Your task to perform on an android device: empty trash in the gmail app Image 0: 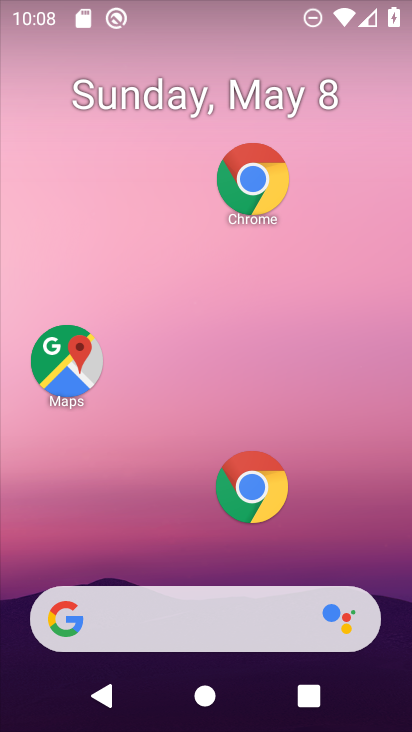
Step 0: drag from (150, 487) to (181, 41)
Your task to perform on an android device: empty trash in the gmail app Image 1: 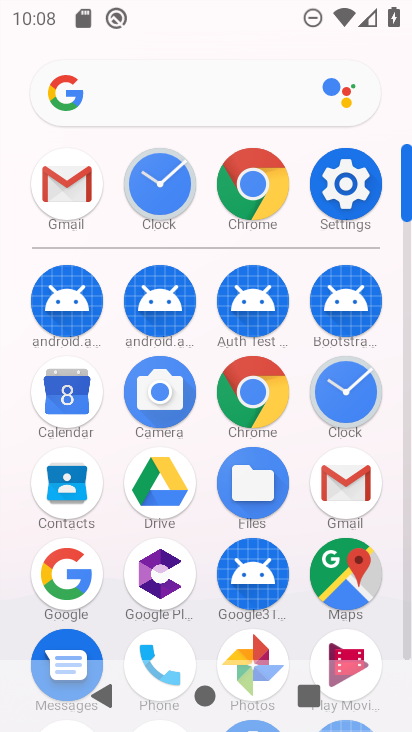
Step 1: click (67, 191)
Your task to perform on an android device: empty trash in the gmail app Image 2: 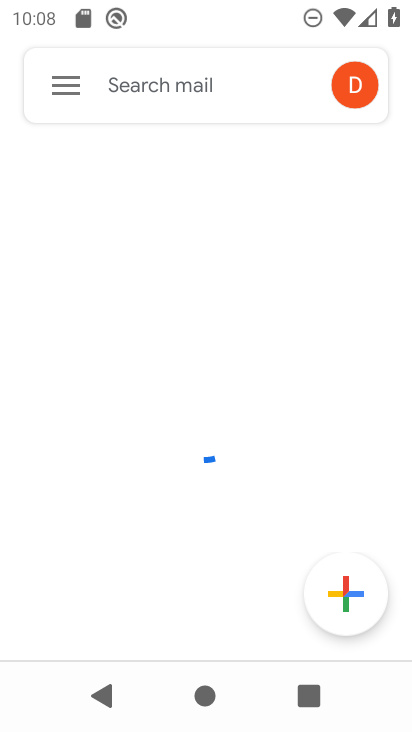
Step 2: click (59, 74)
Your task to perform on an android device: empty trash in the gmail app Image 3: 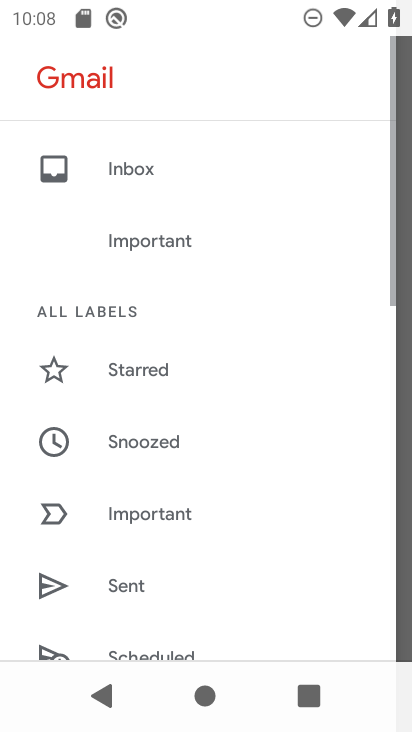
Step 3: drag from (242, 566) to (310, 74)
Your task to perform on an android device: empty trash in the gmail app Image 4: 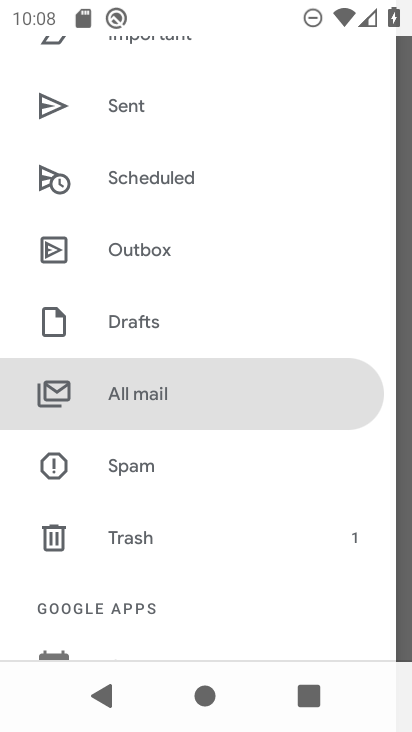
Step 4: drag from (237, 561) to (253, 295)
Your task to perform on an android device: empty trash in the gmail app Image 5: 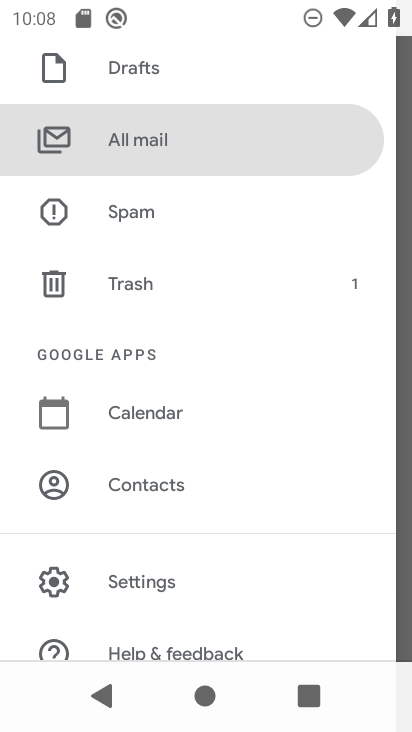
Step 5: click (227, 284)
Your task to perform on an android device: empty trash in the gmail app Image 6: 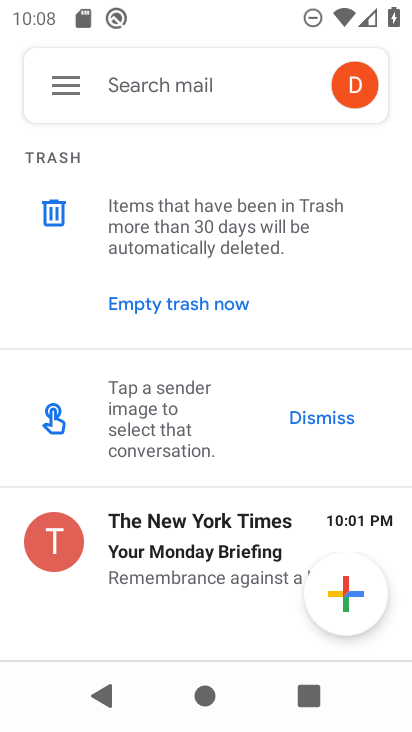
Step 6: click (217, 288)
Your task to perform on an android device: empty trash in the gmail app Image 7: 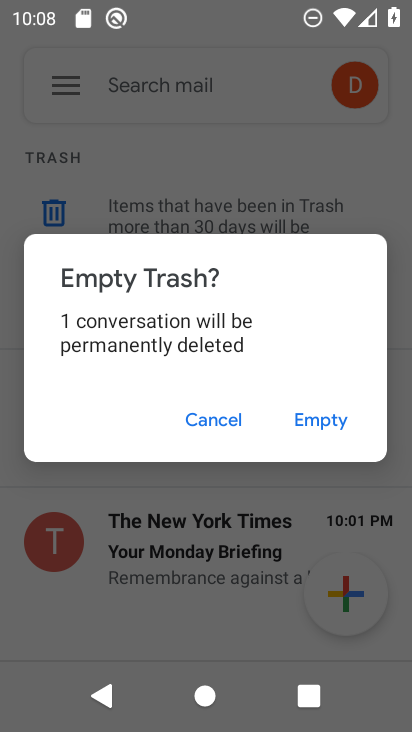
Step 7: click (321, 406)
Your task to perform on an android device: empty trash in the gmail app Image 8: 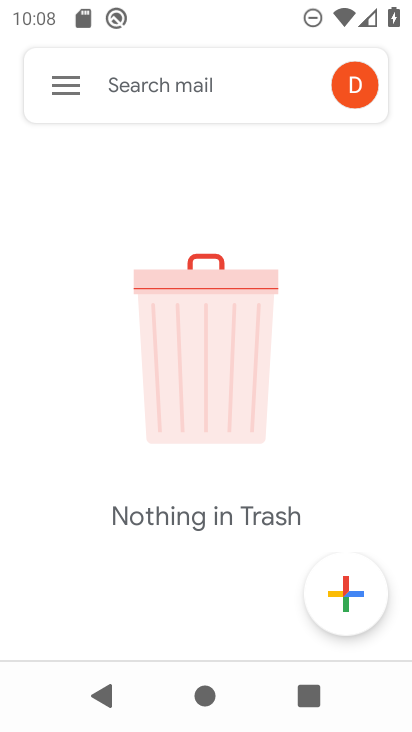
Step 8: task complete